Your task to perform on an android device: Open the calendar and show me this week's events? Image 0: 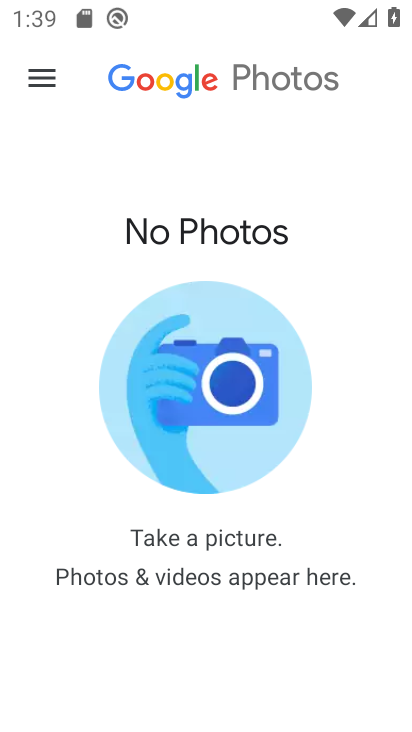
Step 0: press back button
Your task to perform on an android device: Open the calendar and show me this week's events? Image 1: 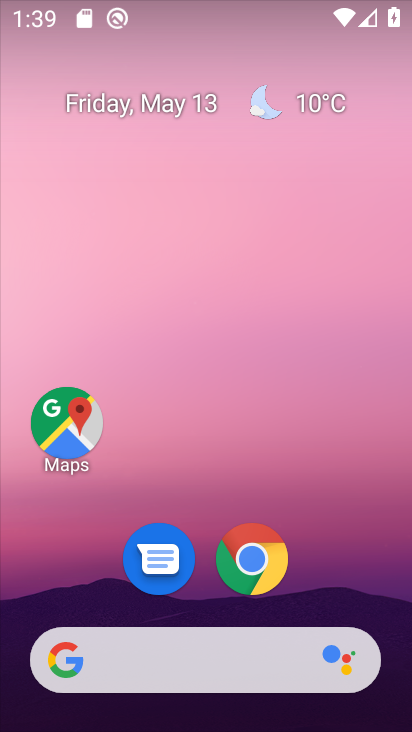
Step 1: drag from (386, 356) to (386, 321)
Your task to perform on an android device: Open the calendar and show me this week's events? Image 2: 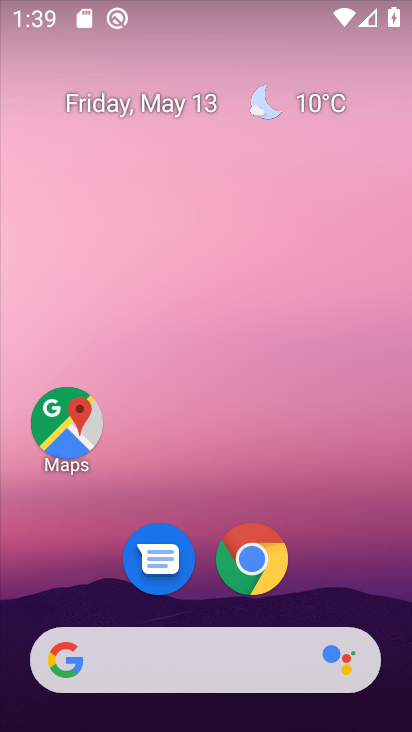
Step 2: drag from (386, 392) to (395, 234)
Your task to perform on an android device: Open the calendar and show me this week's events? Image 3: 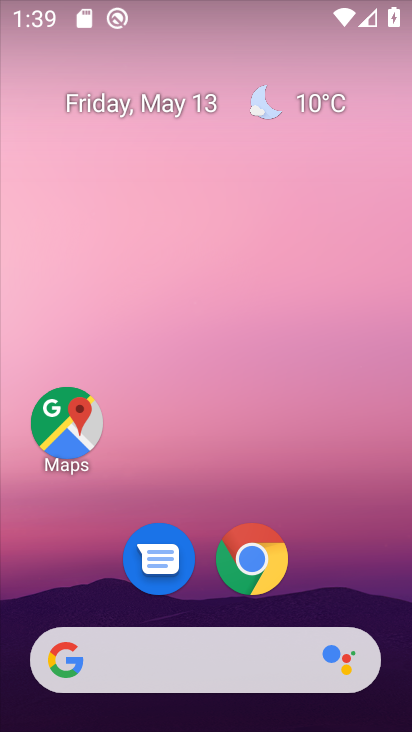
Step 3: drag from (393, 640) to (350, 267)
Your task to perform on an android device: Open the calendar and show me this week's events? Image 4: 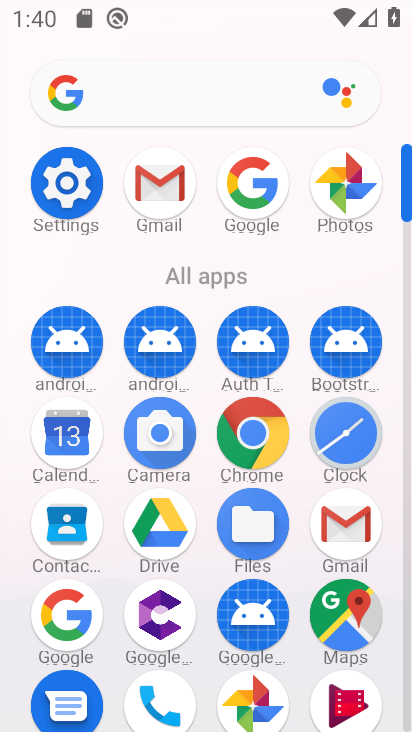
Step 4: click (73, 440)
Your task to perform on an android device: Open the calendar and show me this week's events? Image 5: 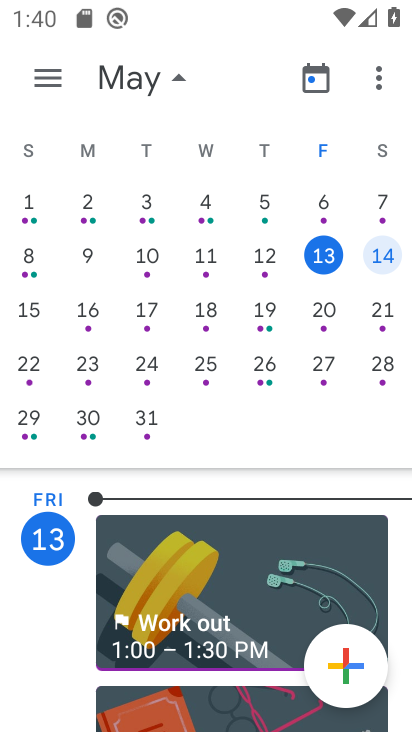
Step 5: click (58, 68)
Your task to perform on an android device: Open the calendar and show me this week's events? Image 6: 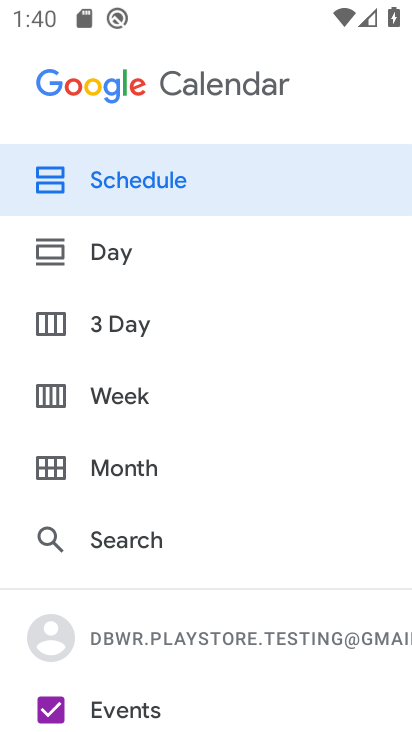
Step 6: click (103, 394)
Your task to perform on an android device: Open the calendar and show me this week's events? Image 7: 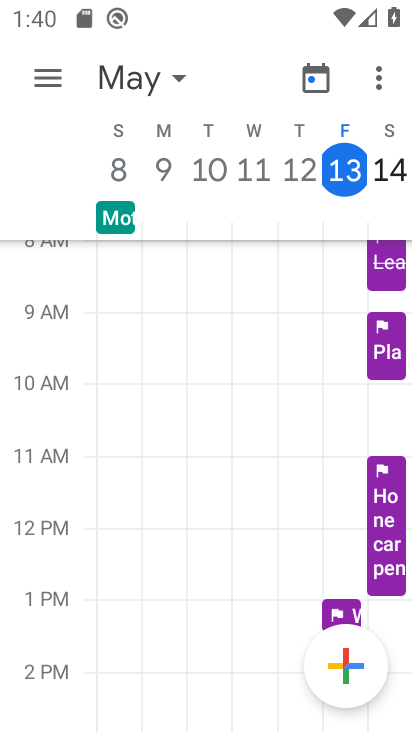
Step 7: task complete